Your task to perform on an android device: Open Google Image 0: 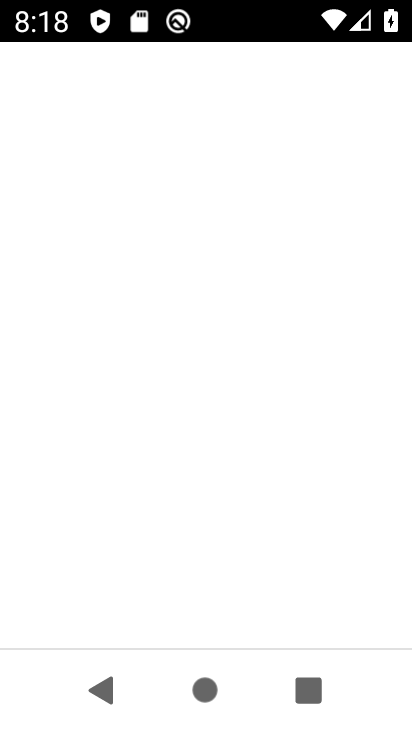
Step 0: drag from (205, 528) to (150, 5)
Your task to perform on an android device: Open Google Image 1: 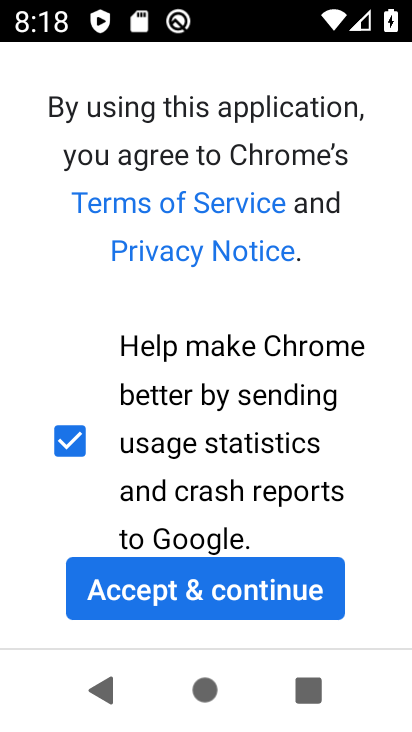
Step 1: press home button
Your task to perform on an android device: Open Google Image 2: 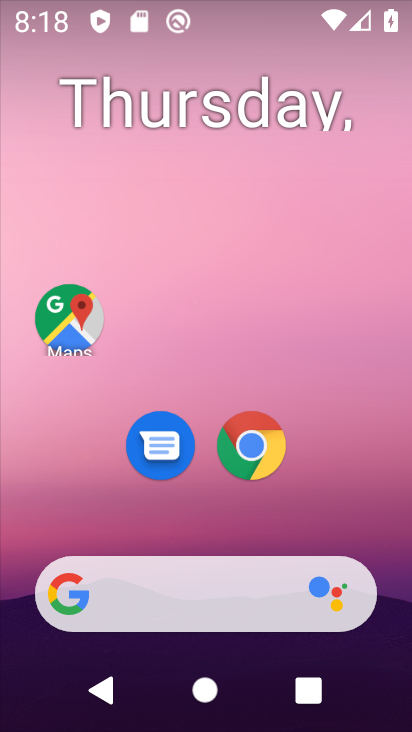
Step 2: click (229, 572)
Your task to perform on an android device: Open Google Image 3: 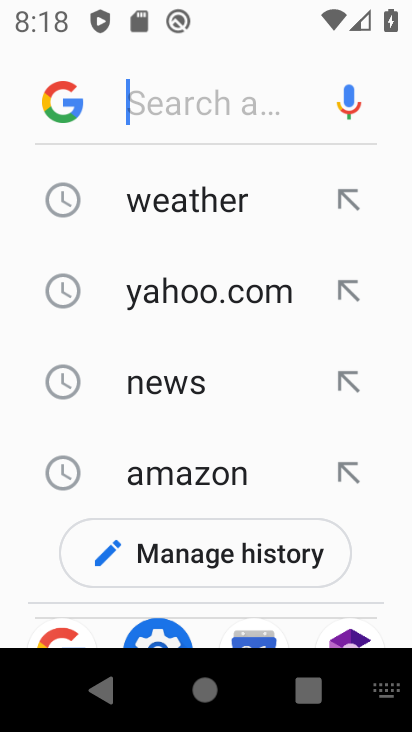
Step 3: task complete